Your task to perform on an android device: Open the calendar and show me this week's events? Image 0: 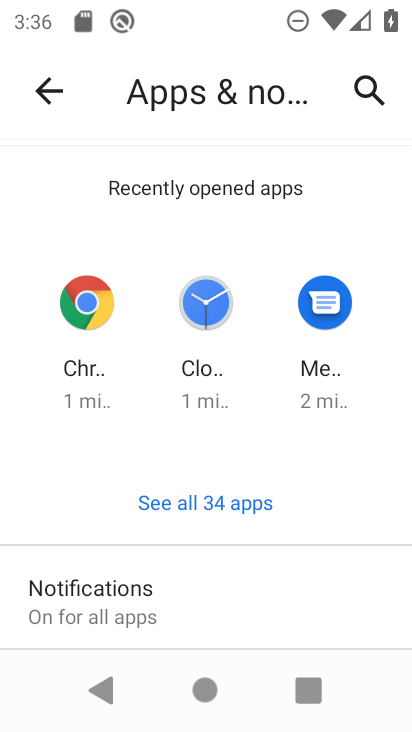
Step 0: press home button
Your task to perform on an android device: Open the calendar and show me this week's events? Image 1: 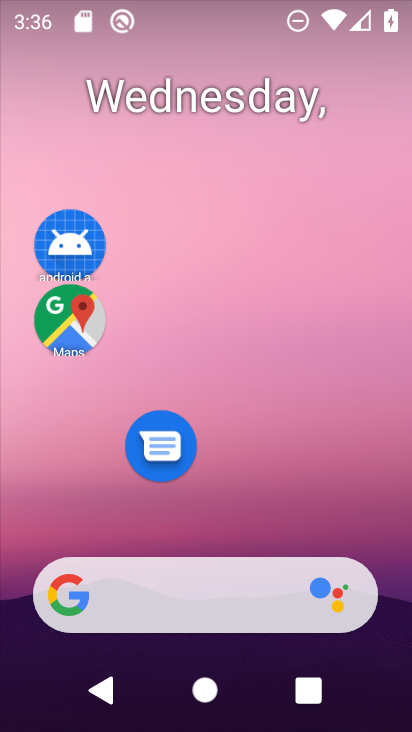
Step 1: drag from (239, 499) to (245, 213)
Your task to perform on an android device: Open the calendar and show me this week's events? Image 2: 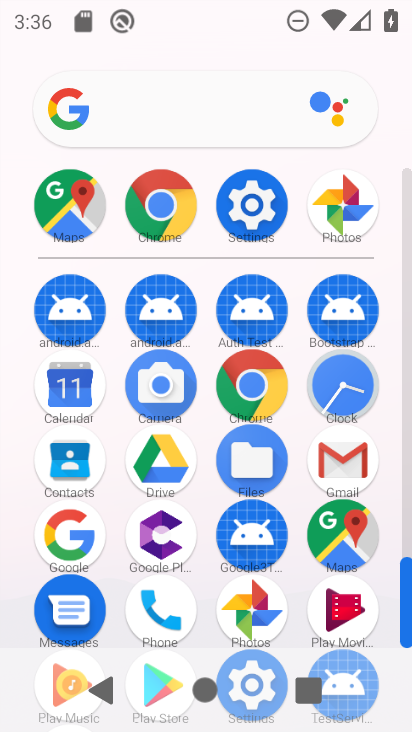
Step 2: click (245, 213)
Your task to perform on an android device: Open the calendar and show me this week's events? Image 3: 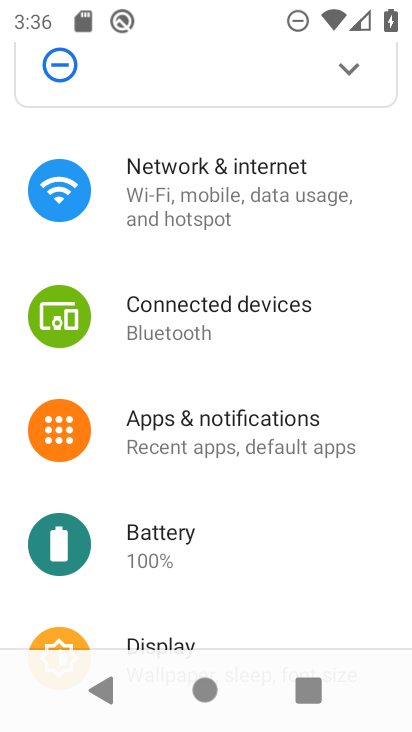
Step 3: press home button
Your task to perform on an android device: Open the calendar and show me this week's events? Image 4: 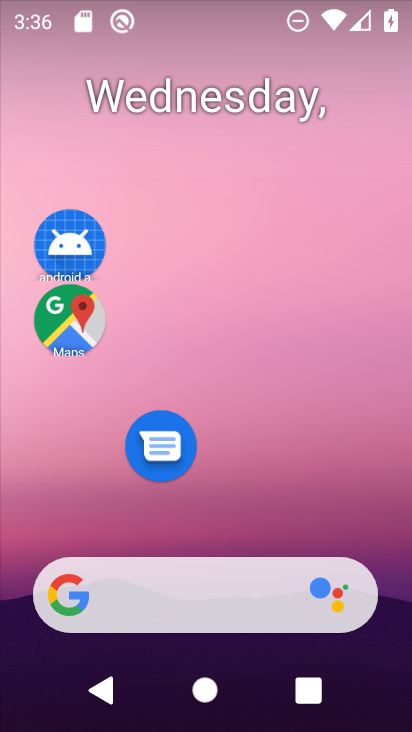
Step 4: drag from (286, 480) to (275, 63)
Your task to perform on an android device: Open the calendar and show me this week's events? Image 5: 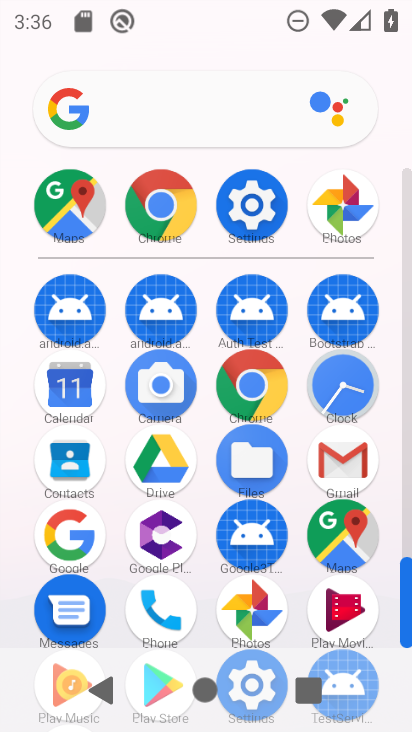
Step 5: click (63, 382)
Your task to perform on an android device: Open the calendar and show me this week's events? Image 6: 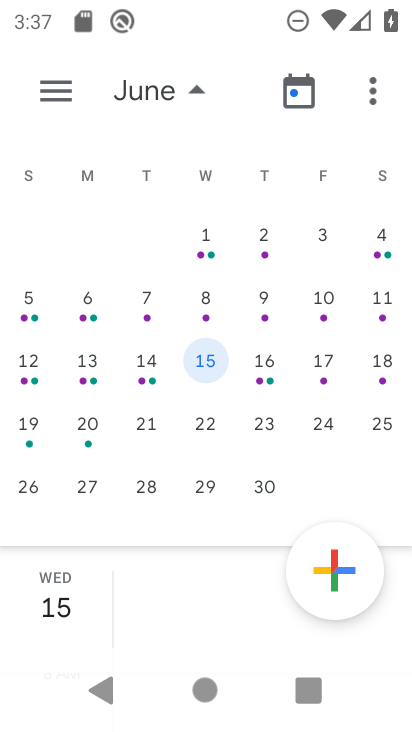
Step 6: click (161, 433)
Your task to perform on an android device: Open the calendar and show me this week's events? Image 7: 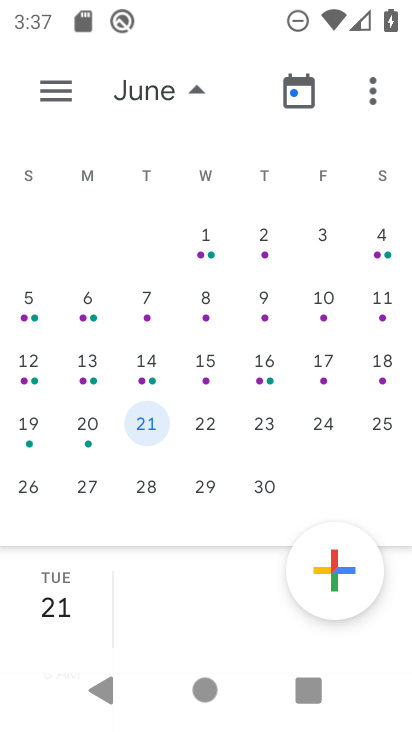
Step 7: click (189, 385)
Your task to perform on an android device: Open the calendar and show me this week's events? Image 8: 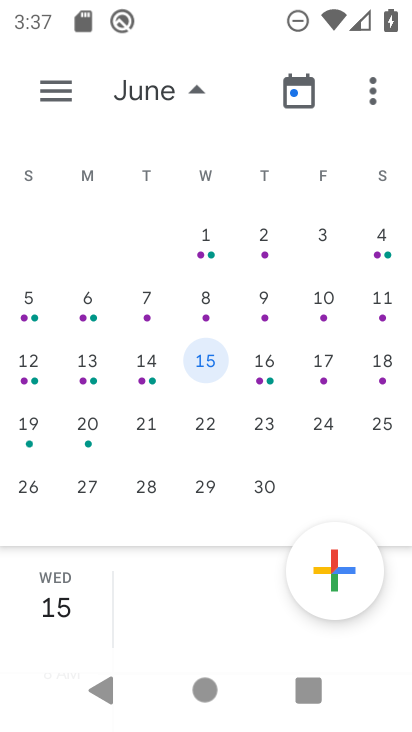
Step 8: task complete